Your task to perform on an android device: Is it going to rain today? Image 0: 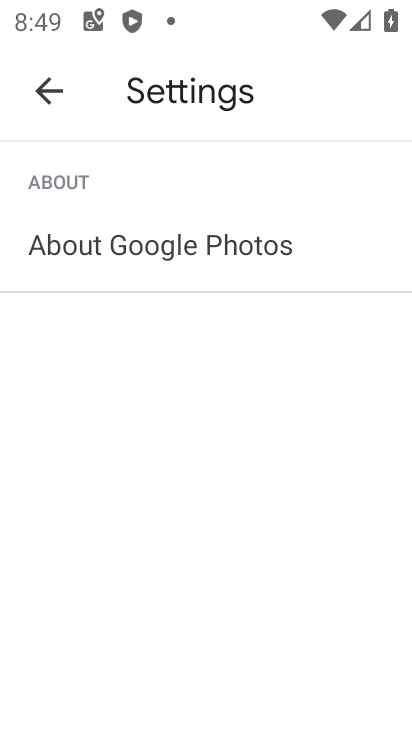
Step 0: press home button
Your task to perform on an android device: Is it going to rain today? Image 1: 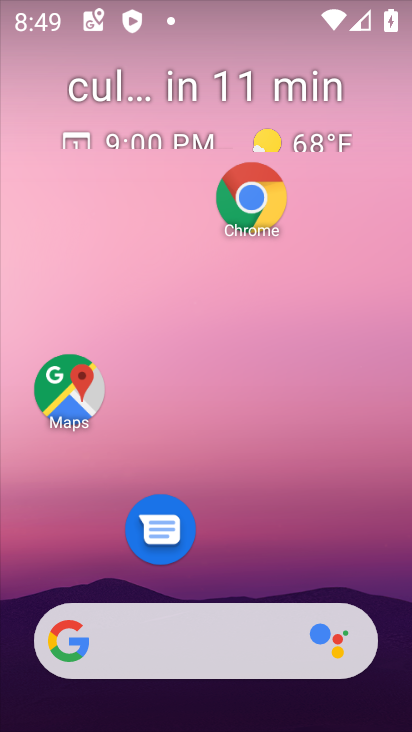
Step 1: drag from (209, 561) to (214, 206)
Your task to perform on an android device: Is it going to rain today? Image 2: 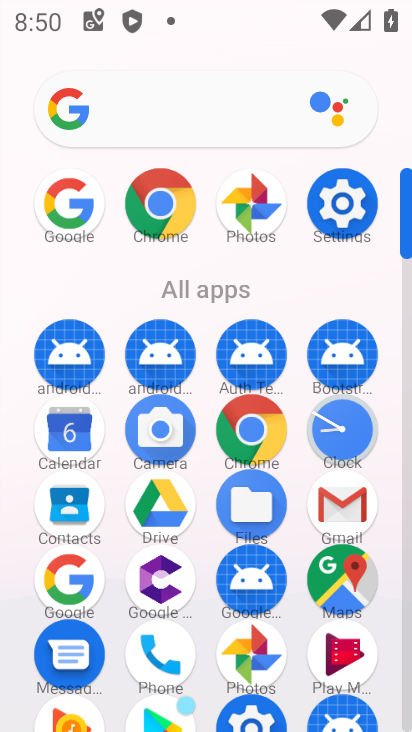
Step 2: click (81, 580)
Your task to perform on an android device: Is it going to rain today? Image 3: 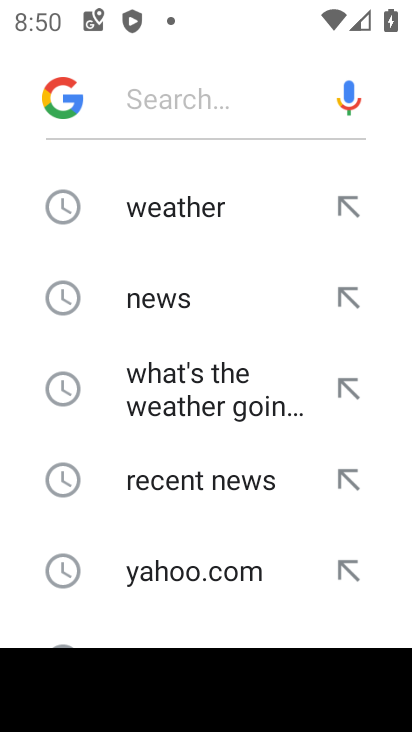
Step 3: click (140, 214)
Your task to perform on an android device: Is it going to rain today? Image 4: 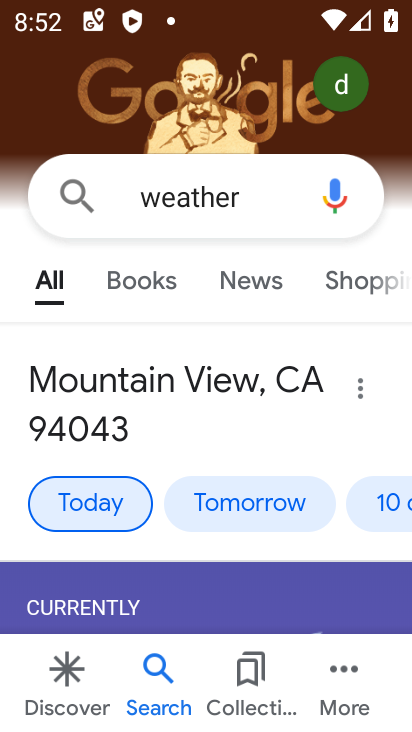
Step 4: click (209, 506)
Your task to perform on an android device: Is it going to rain today? Image 5: 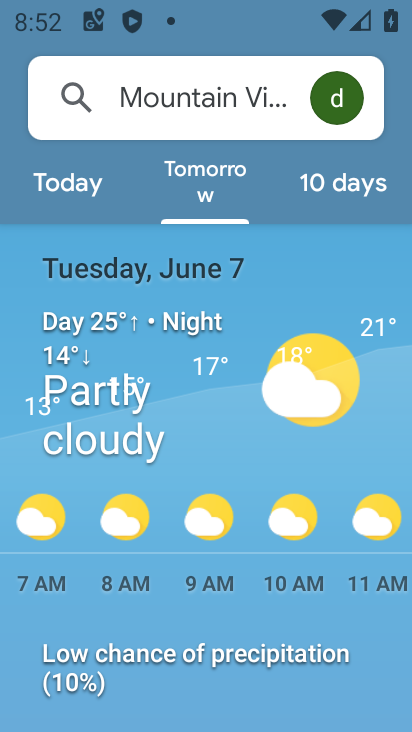
Step 5: click (59, 177)
Your task to perform on an android device: Is it going to rain today? Image 6: 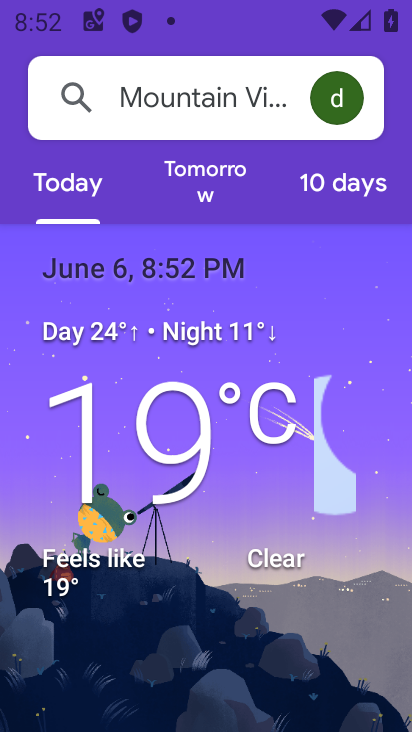
Step 6: task complete